Your task to perform on an android device: Is it going to rain today? Image 0: 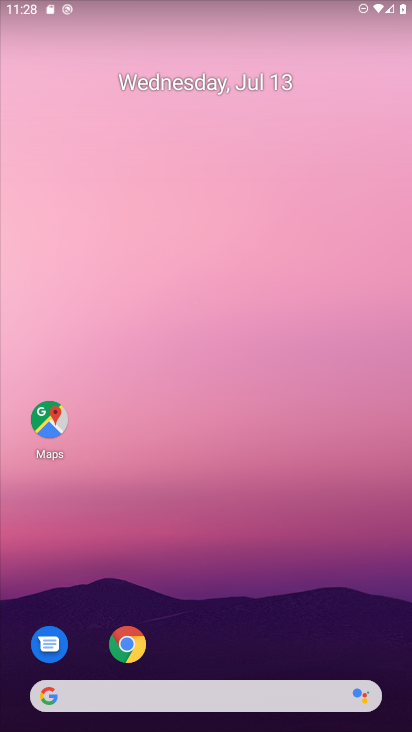
Step 0: click (188, 686)
Your task to perform on an android device: Is it going to rain today? Image 1: 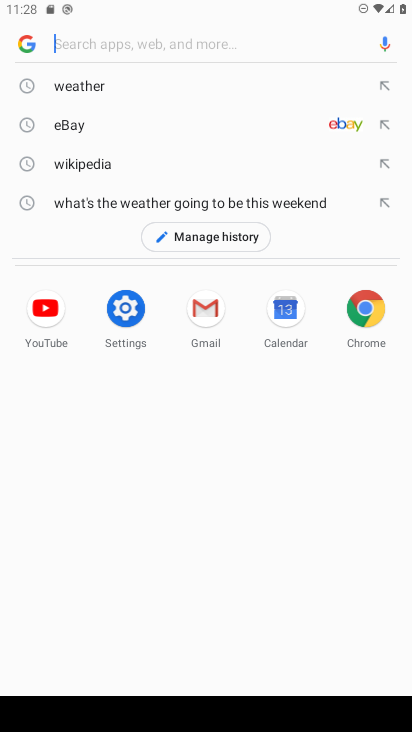
Step 1: click (84, 80)
Your task to perform on an android device: Is it going to rain today? Image 2: 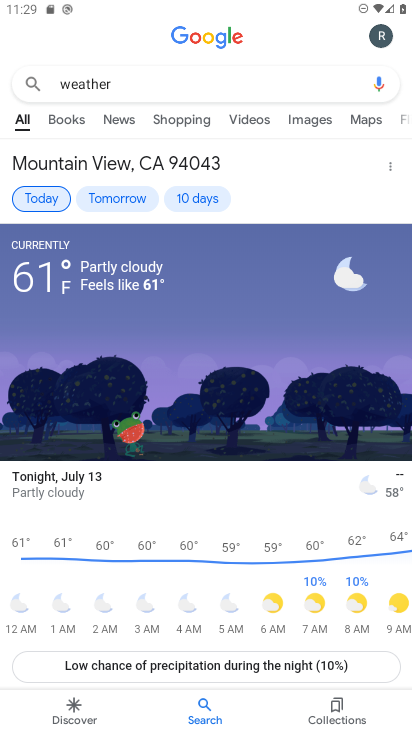
Step 2: task complete